Your task to perform on an android device: Go to notification settings Image 0: 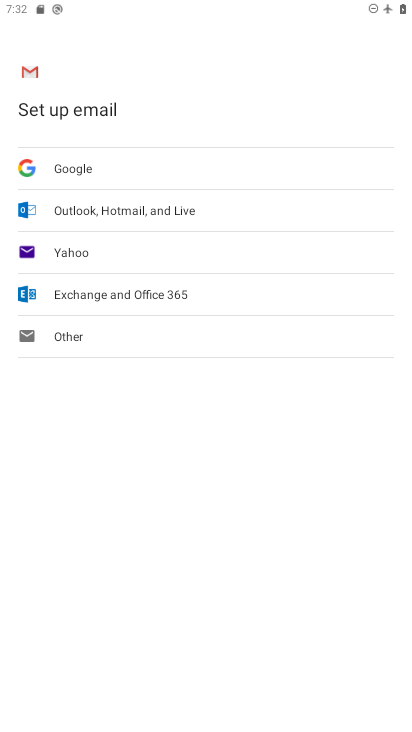
Step 0: press home button
Your task to perform on an android device: Go to notification settings Image 1: 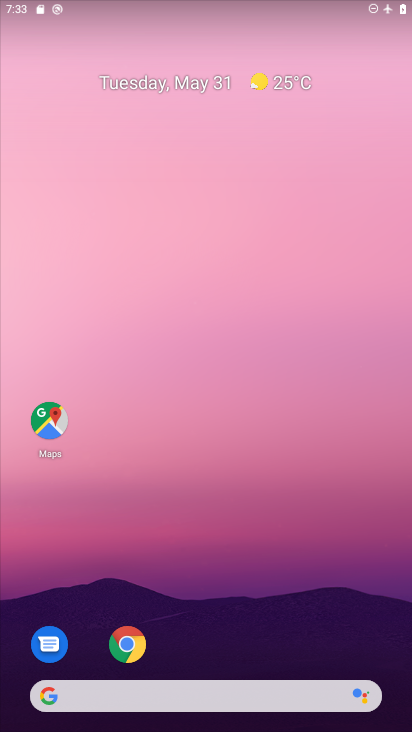
Step 1: drag from (237, 692) to (302, 9)
Your task to perform on an android device: Go to notification settings Image 2: 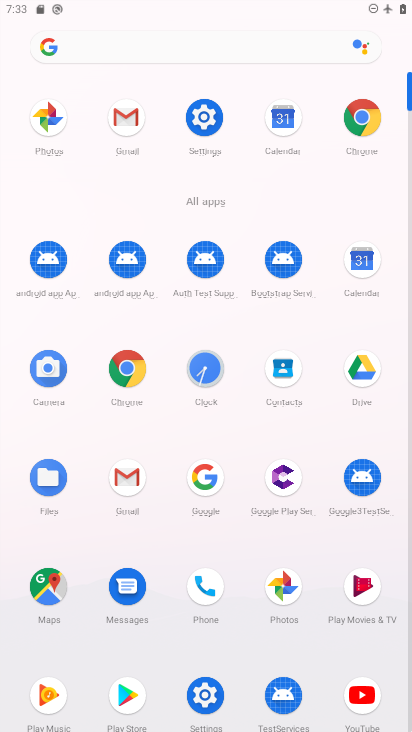
Step 2: click (217, 696)
Your task to perform on an android device: Go to notification settings Image 3: 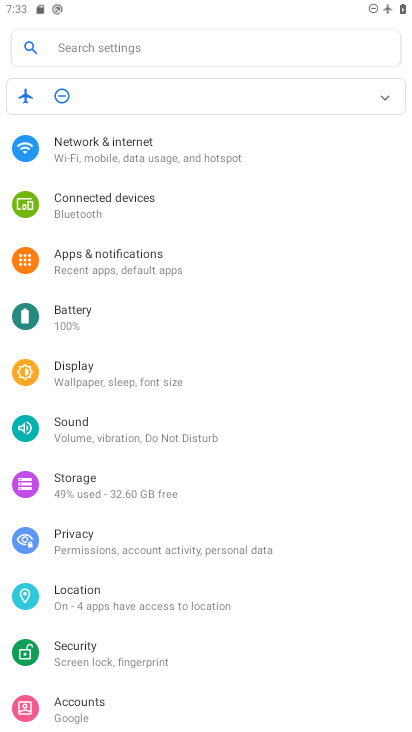
Step 3: click (140, 137)
Your task to perform on an android device: Go to notification settings Image 4: 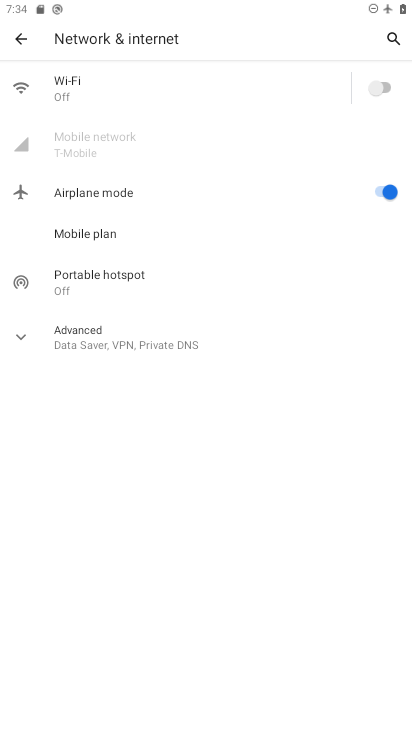
Step 4: click (385, 189)
Your task to perform on an android device: Go to notification settings Image 5: 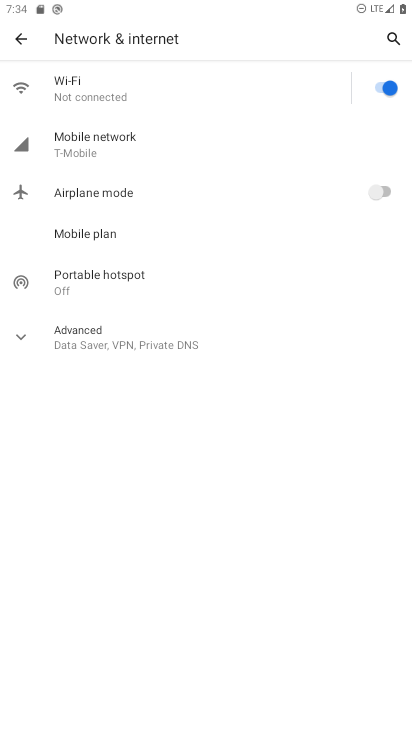
Step 5: task complete